Your task to perform on an android device: allow cookies in the chrome app Image 0: 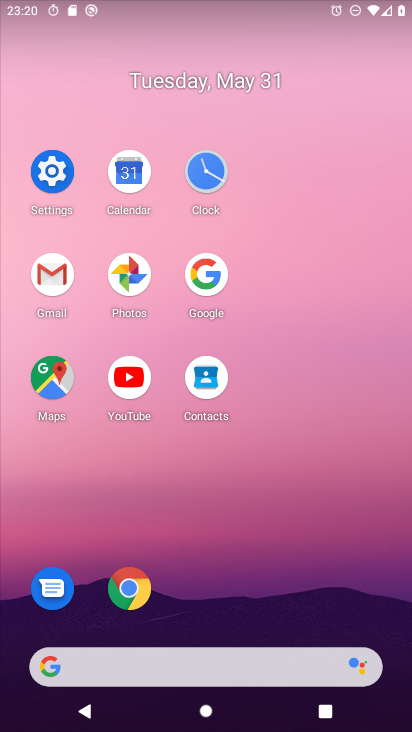
Step 0: click (129, 590)
Your task to perform on an android device: allow cookies in the chrome app Image 1: 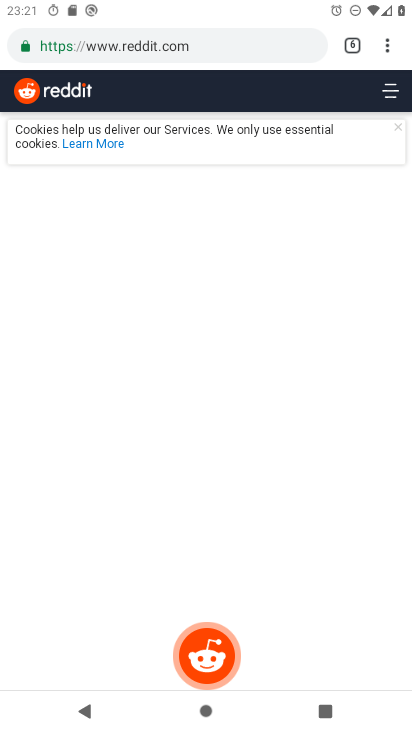
Step 1: click (386, 41)
Your task to perform on an android device: allow cookies in the chrome app Image 2: 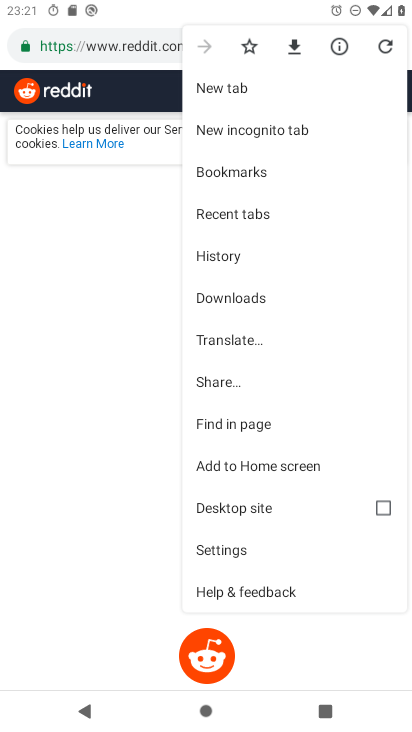
Step 2: click (235, 557)
Your task to perform on an android device: allow cookies in the chrome app Image 3: 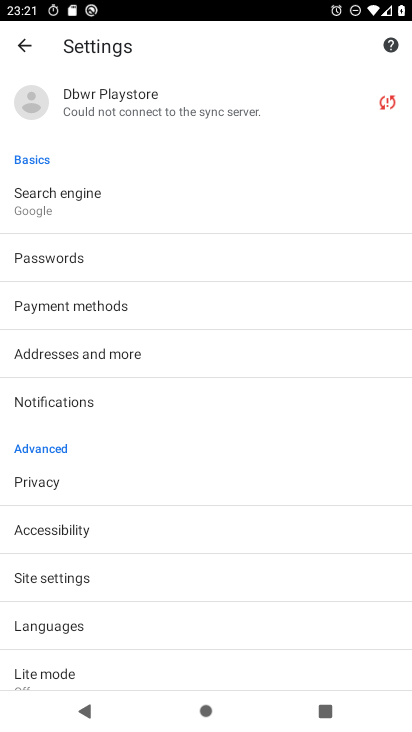
Step 3: click (96, 572)
Your task to perform on an android device: allow cookies in the chrome app Image 4: 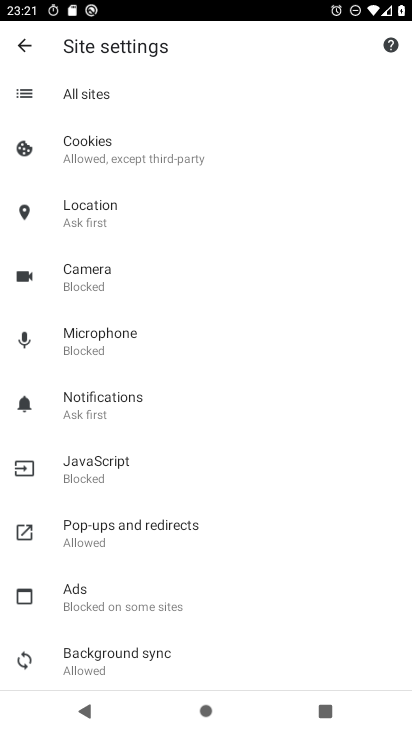
Step 4: click (185, 152)
Your task to perform on an android device: allow cookies in the chrome app Image 5: 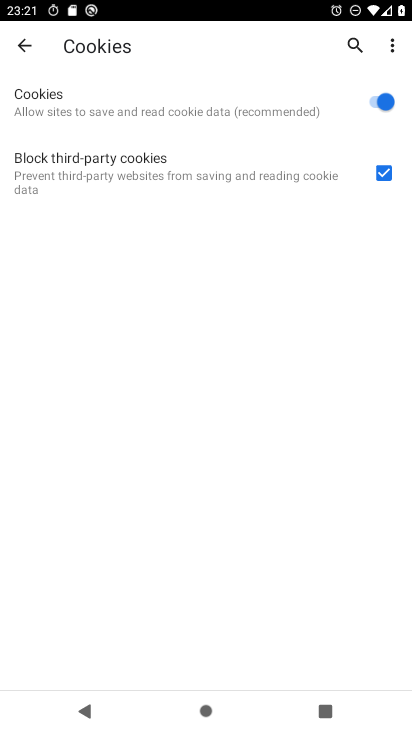
Step 5: task complete